Your task to perform on an android device: install app "Google Photos" Image 0: 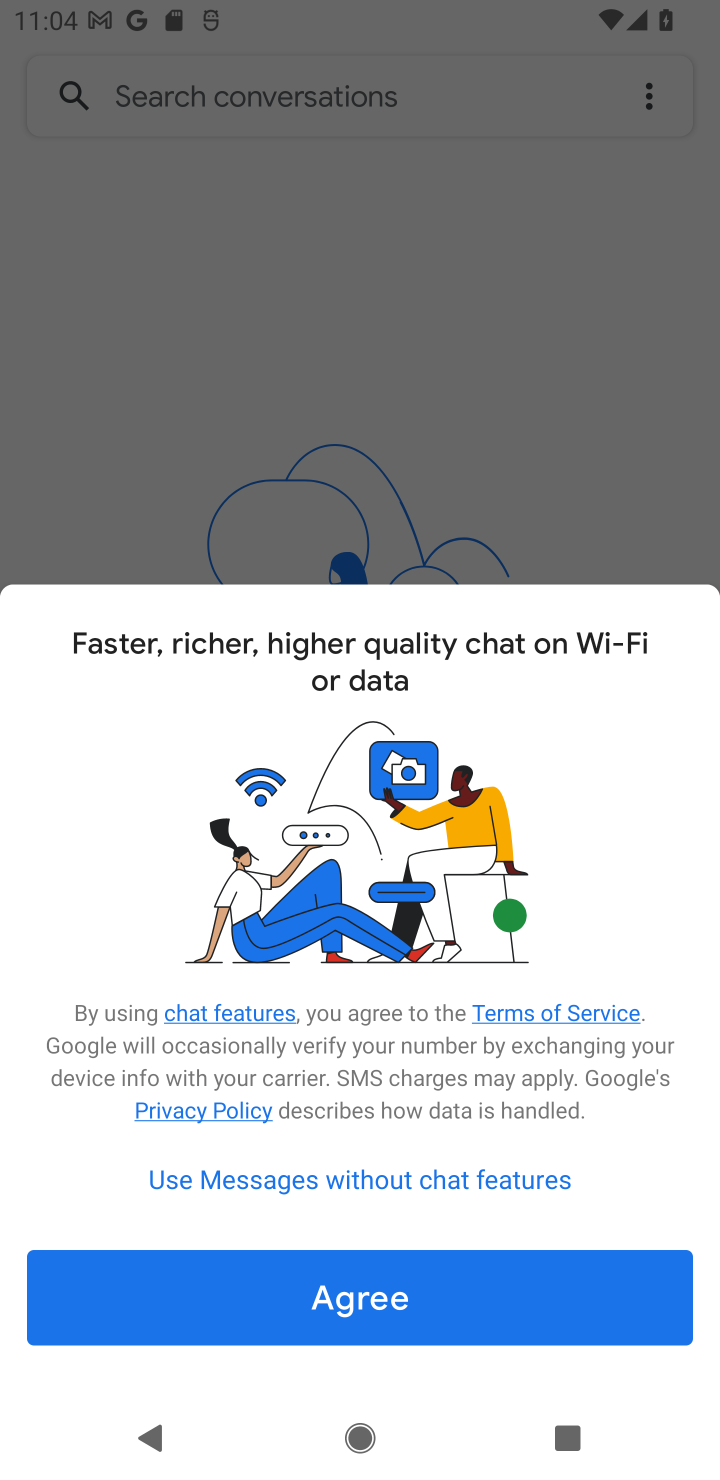
Step 0: press back button
Your task to perform on an android device: install app "Google Photos" Image 1: 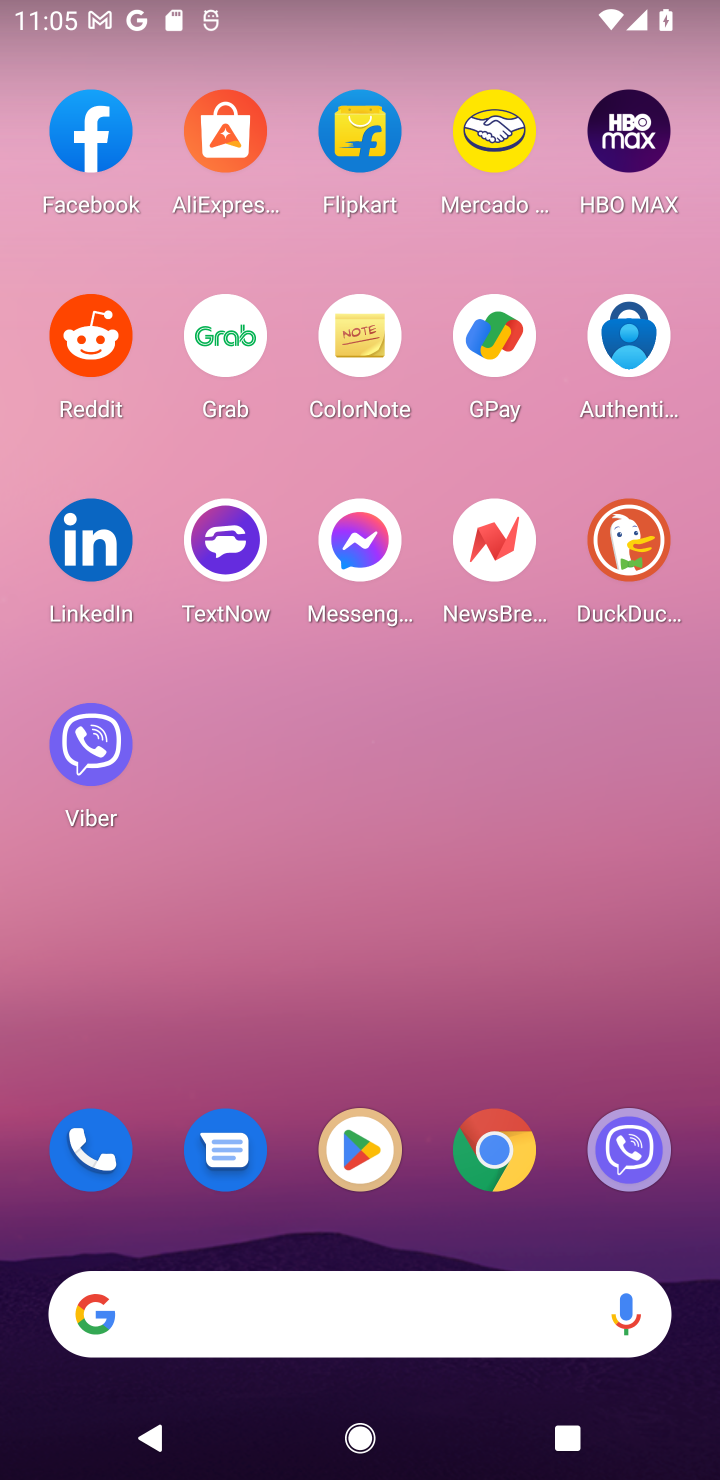
Step 1: click (346, 1157)
Your task to perform on an android device: install app "Google Photos" Image 2: 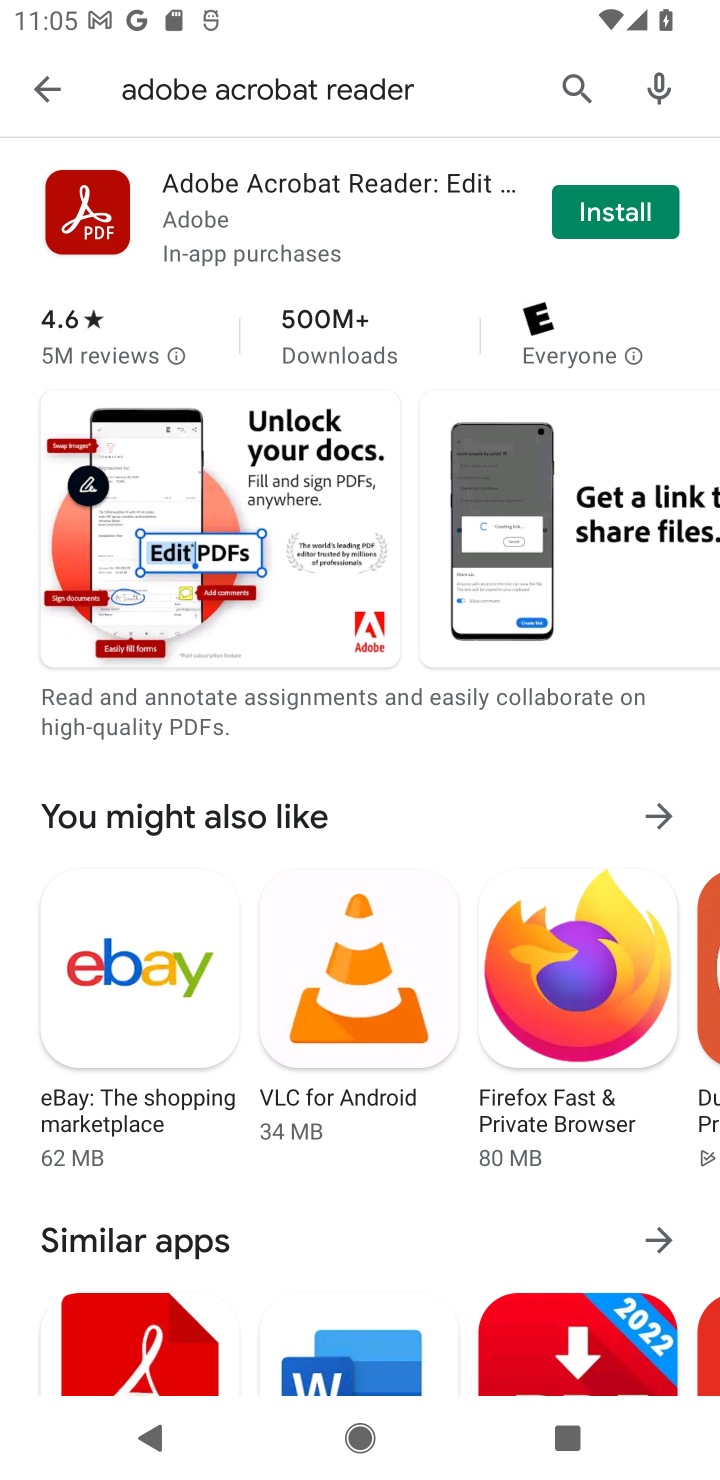
Step 2: click (554, 76)
Your task to perform on an android device: install app "Google Photos" Image 3: 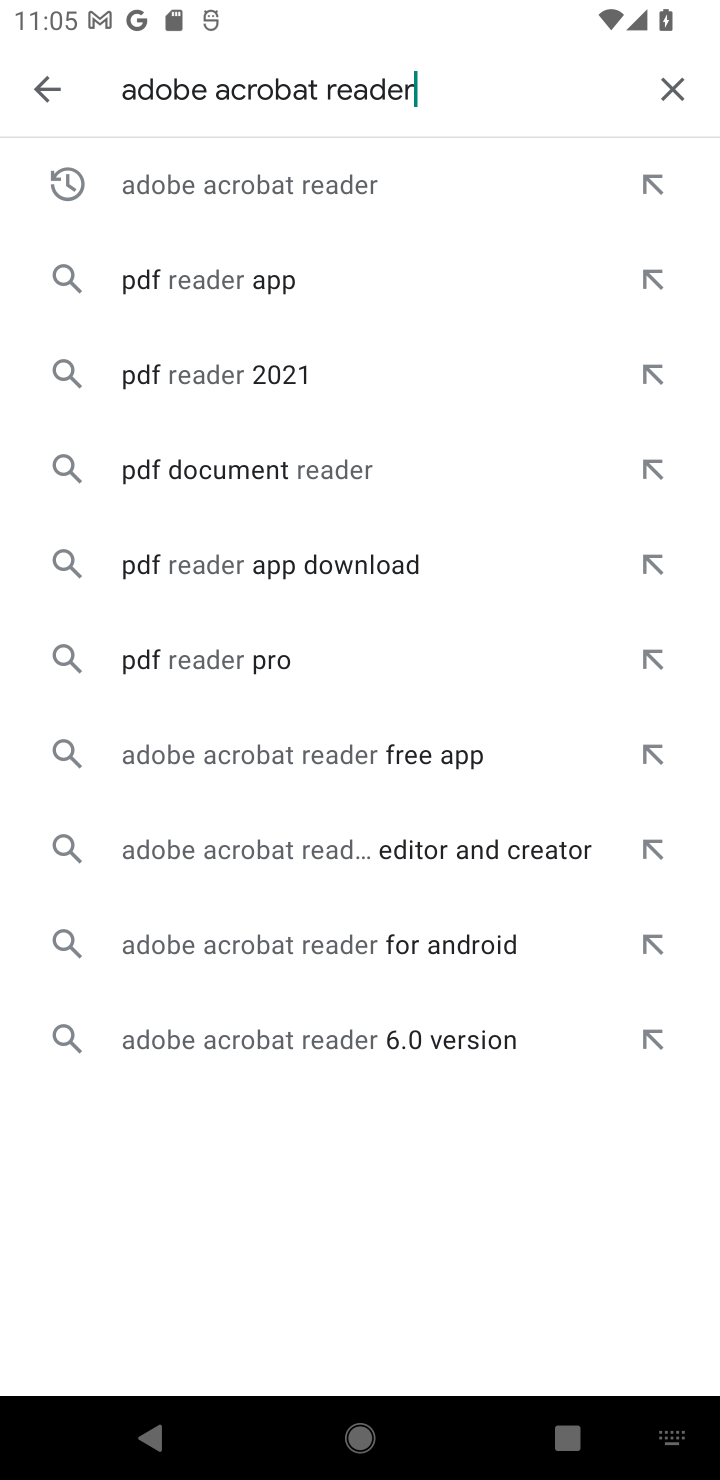
Step 3: click (658, 93)
Your task to perform on an android device: install app "Google Photos" Image 4: 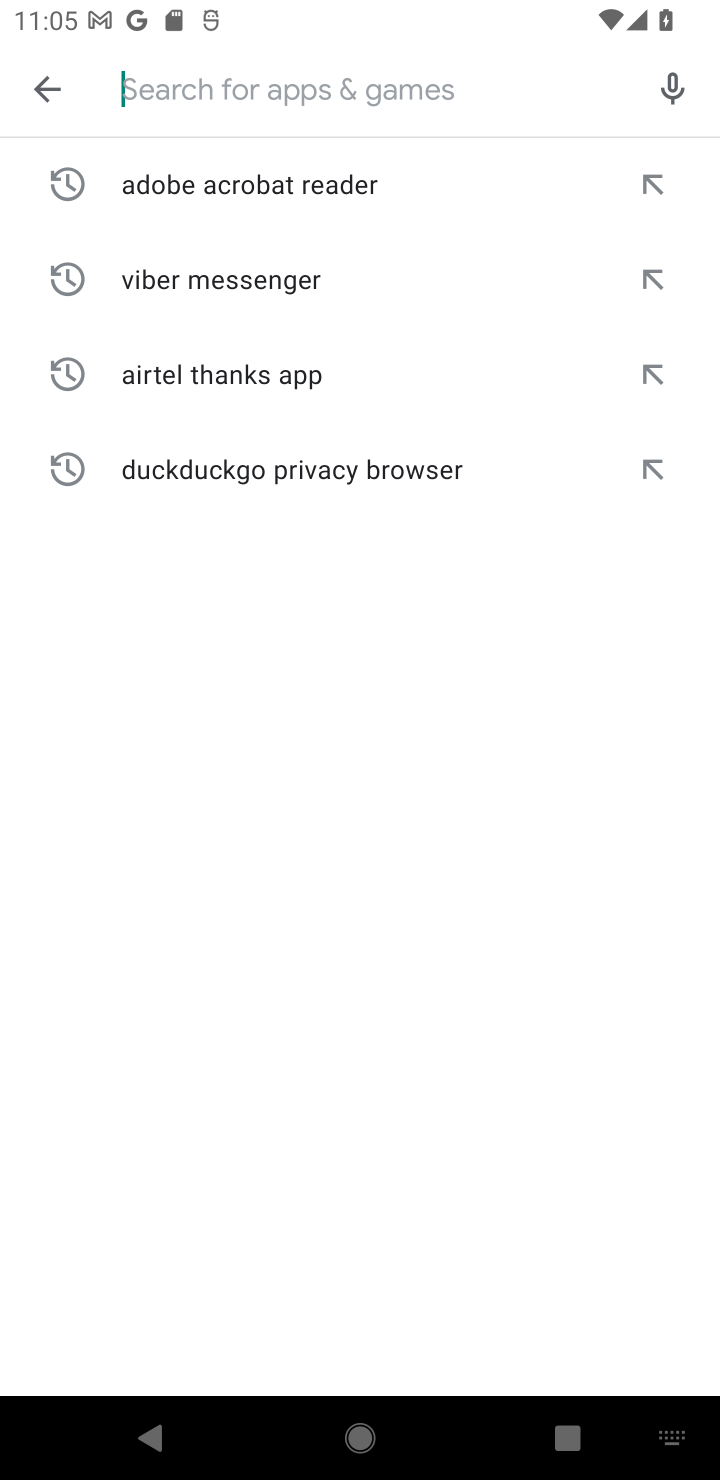
Step 4: type "Google Photos"
Your task to perform on an android device: install app "Google Photos" Image 5: 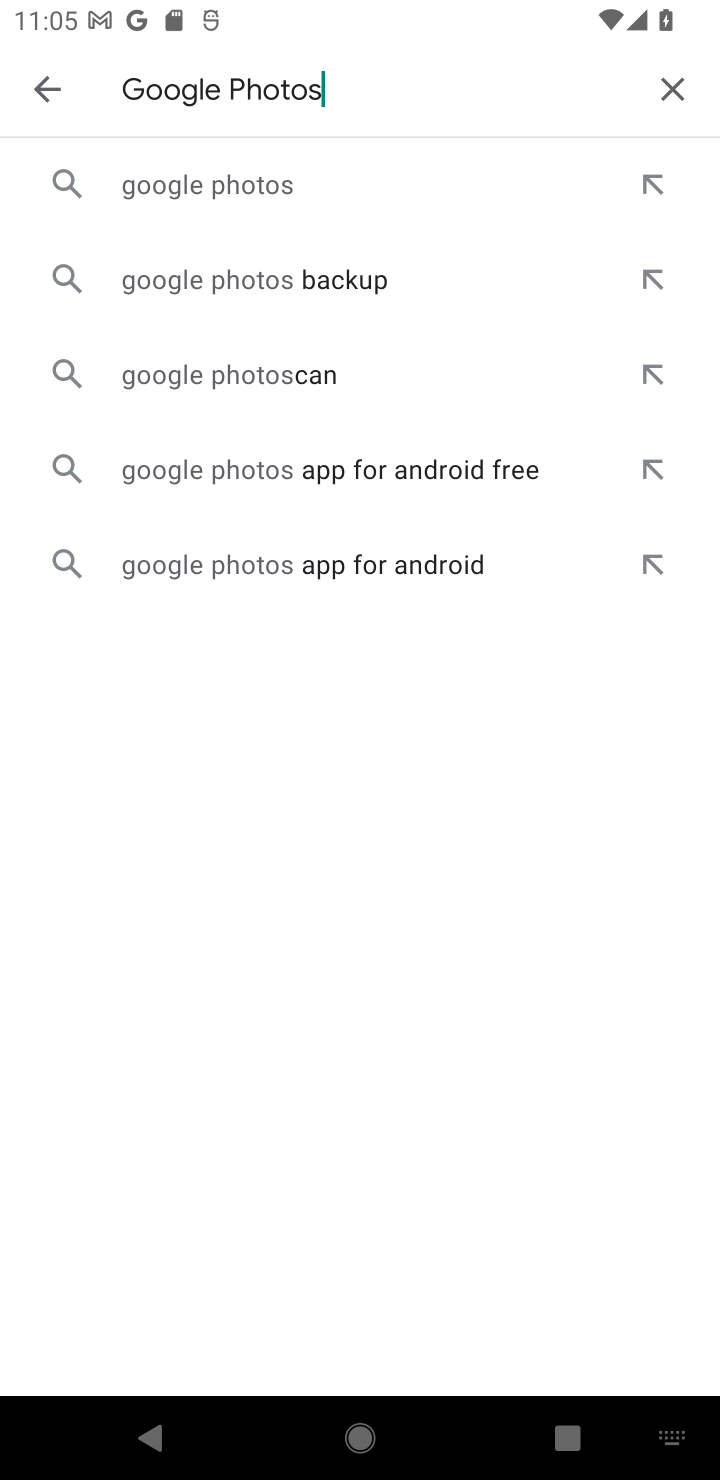
Step 5: click (222, 165)
Your task to perform on an android device: install app "Google Photos" Image 6: 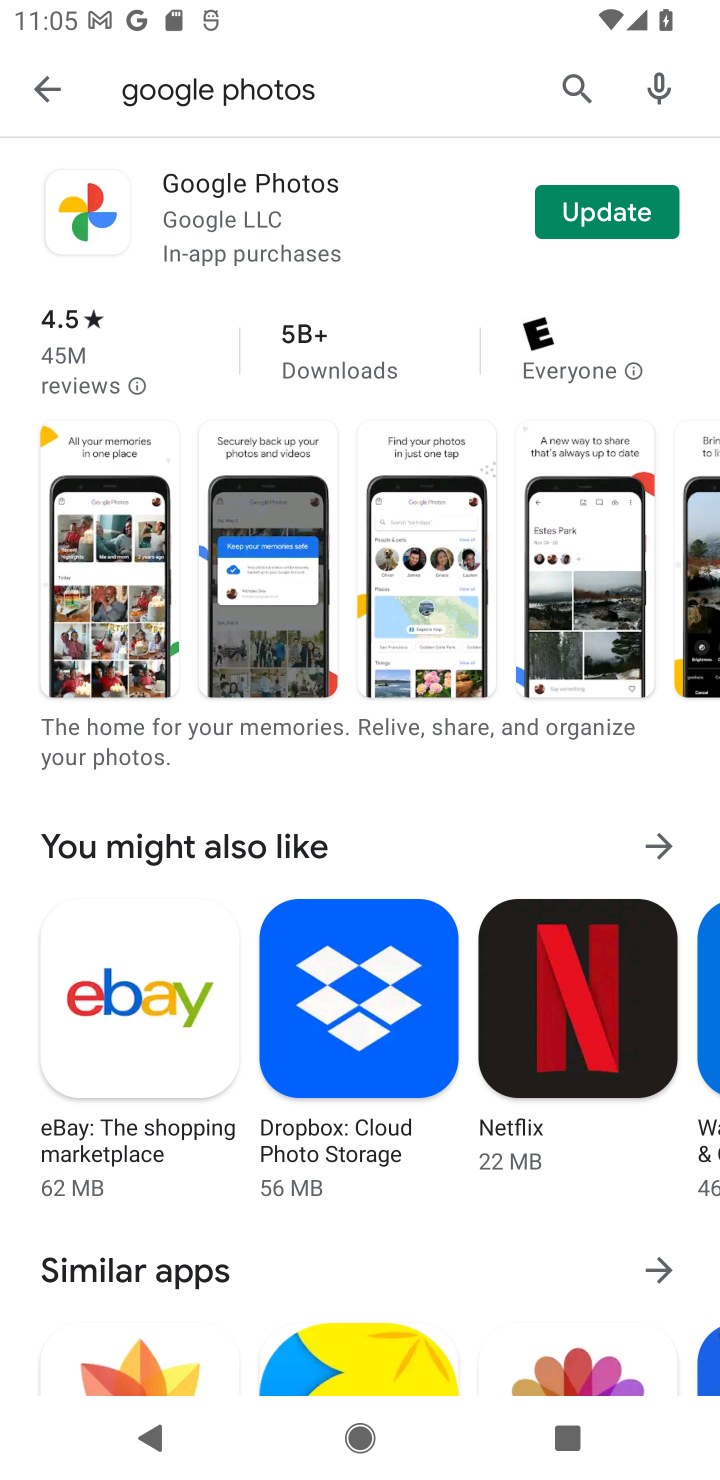
Step 6: click (426, 195)
Your task to perform on an android device: install app "Google Photos" Image 7: 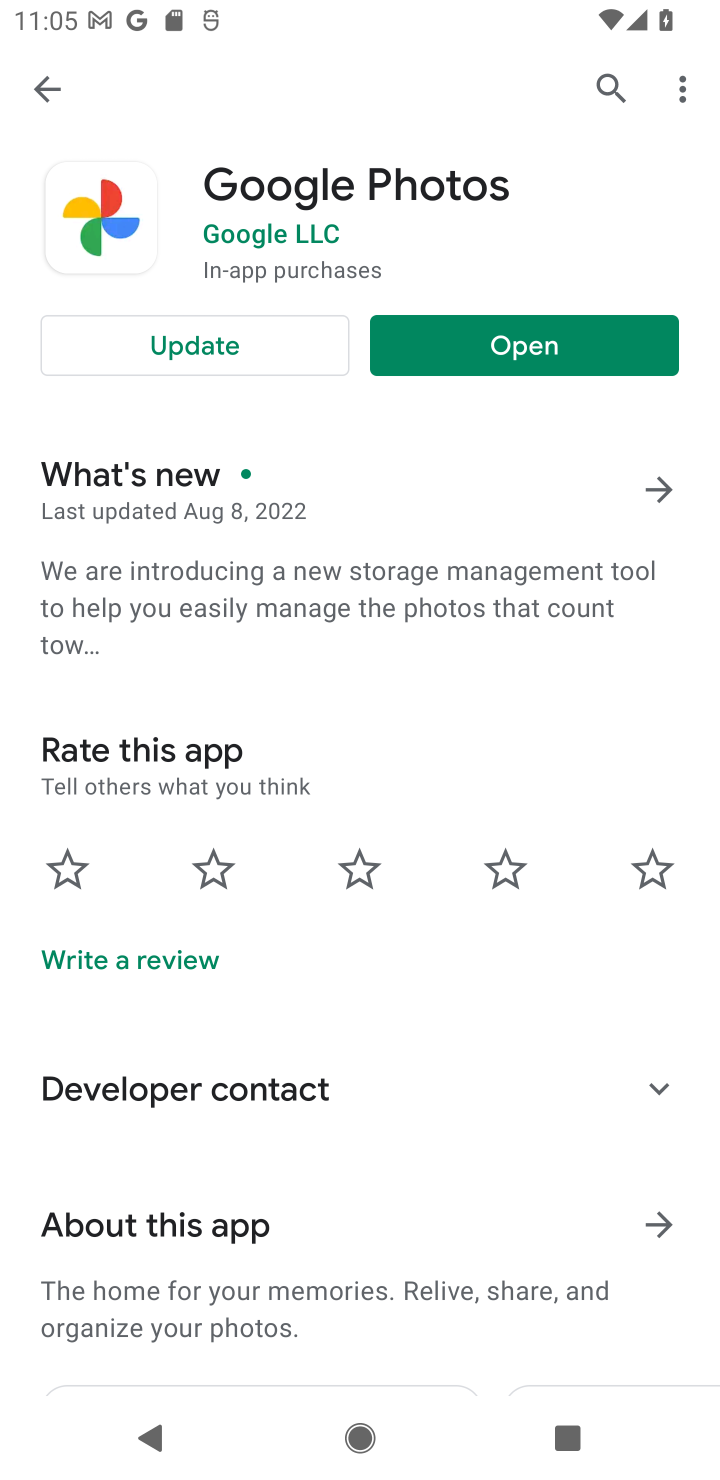
Step 7: task complete